Your task to perform on an android device: Show the shopping cart on amazon.com. Image 0: 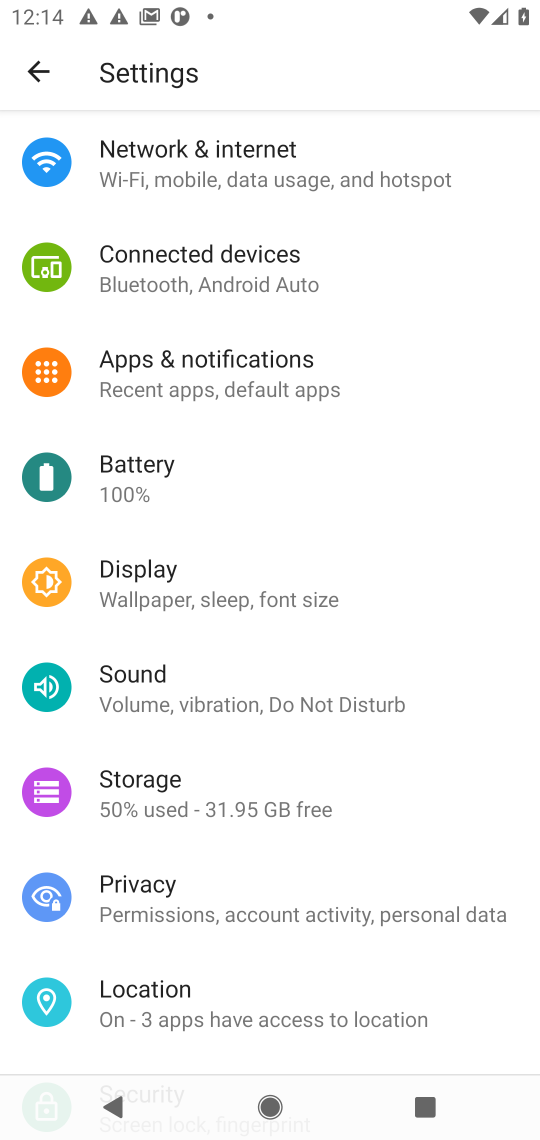
Step 0: press home button
Your task to perform on an android device: Show the shopping cart on amazon.com. Image 1: 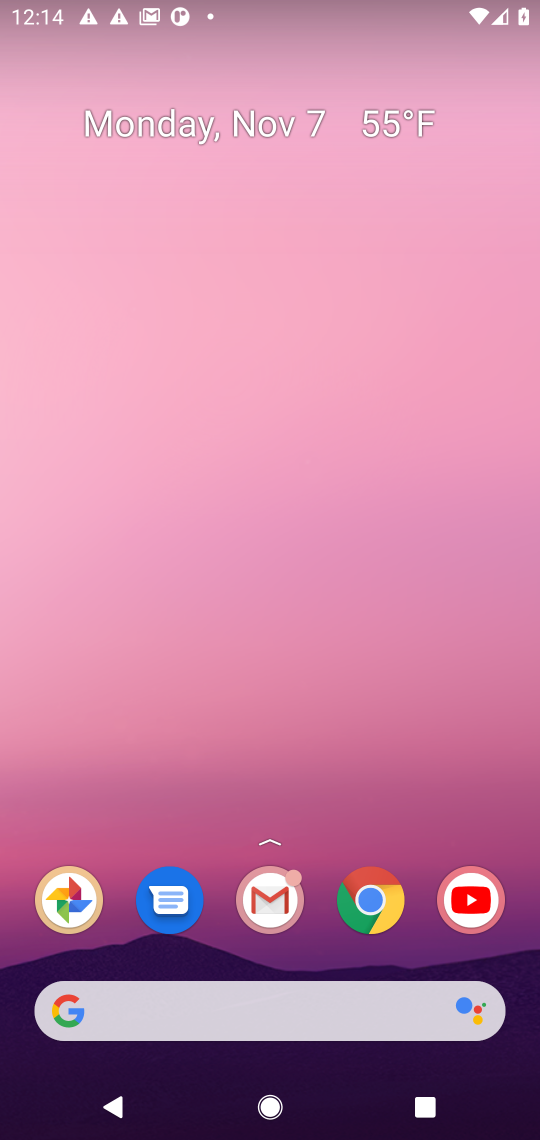
Step 1: click (218, 1016)
Your task to perform on an android device: Show the shopping cart on amazon.com. Image 2: 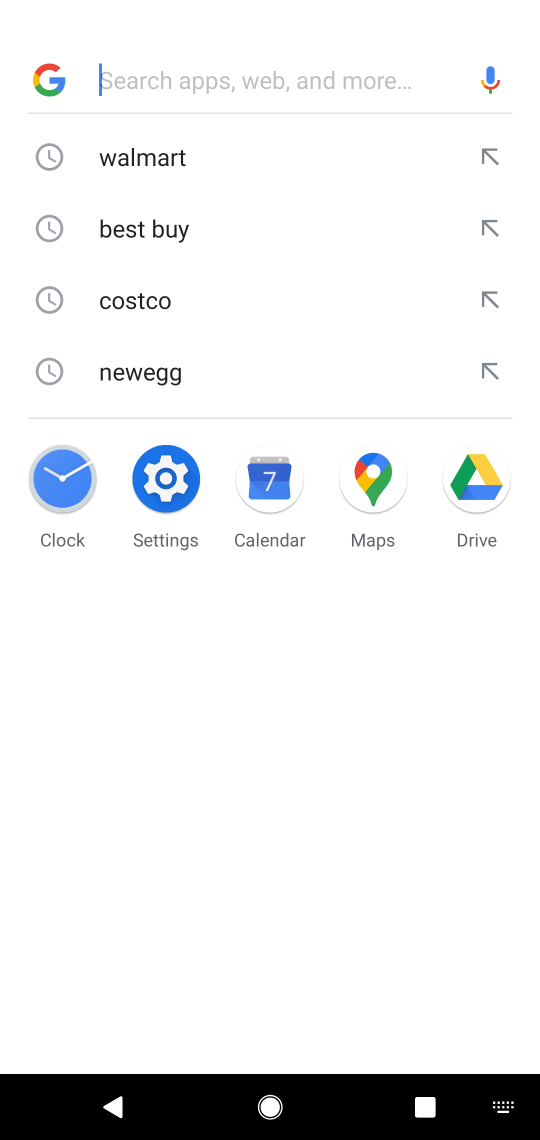
Step 2: type "amazon"
Your task to perform on an android device: Show the shopping cart on amazon.com. Image 3: 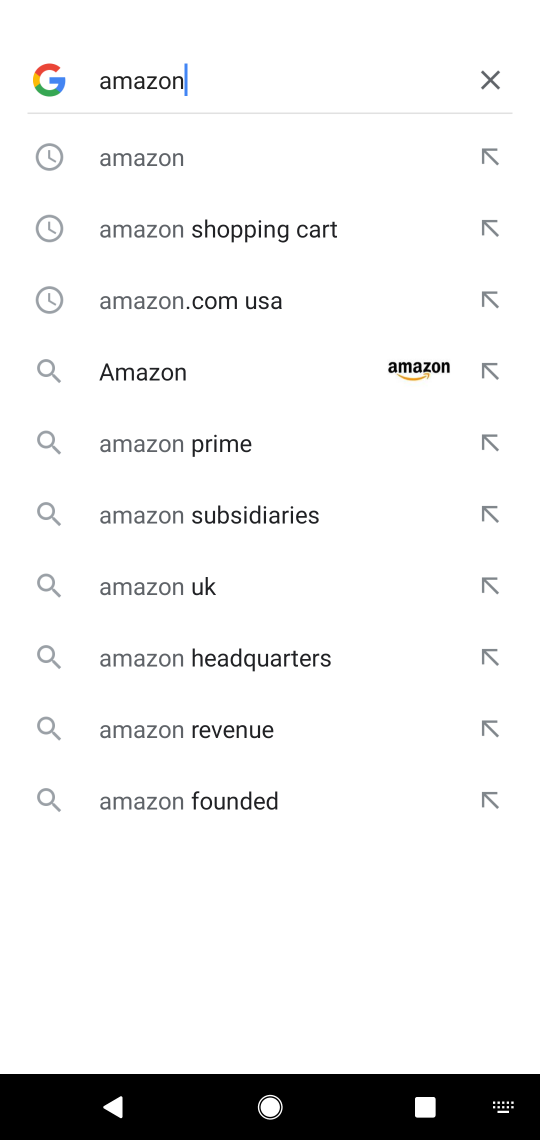
Step 3: click (458, 380)
Your task to perform on an android device: Show the shopping cart on amazon.com. Image 4: 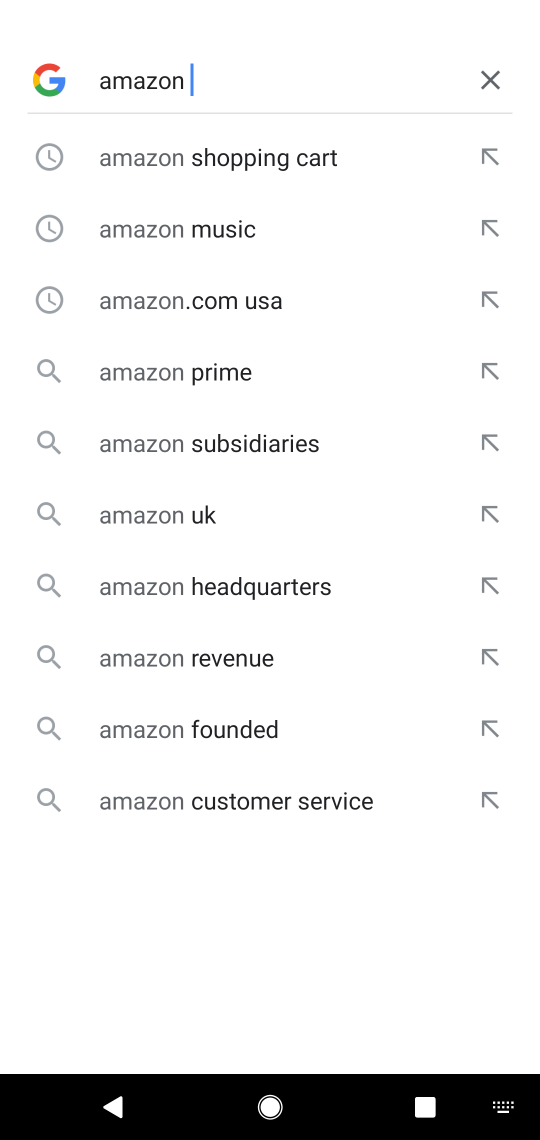
Step 4: click (298, 530)
Your task to perform on an android device: Show the shopping cart on amazon.com. Image 5: 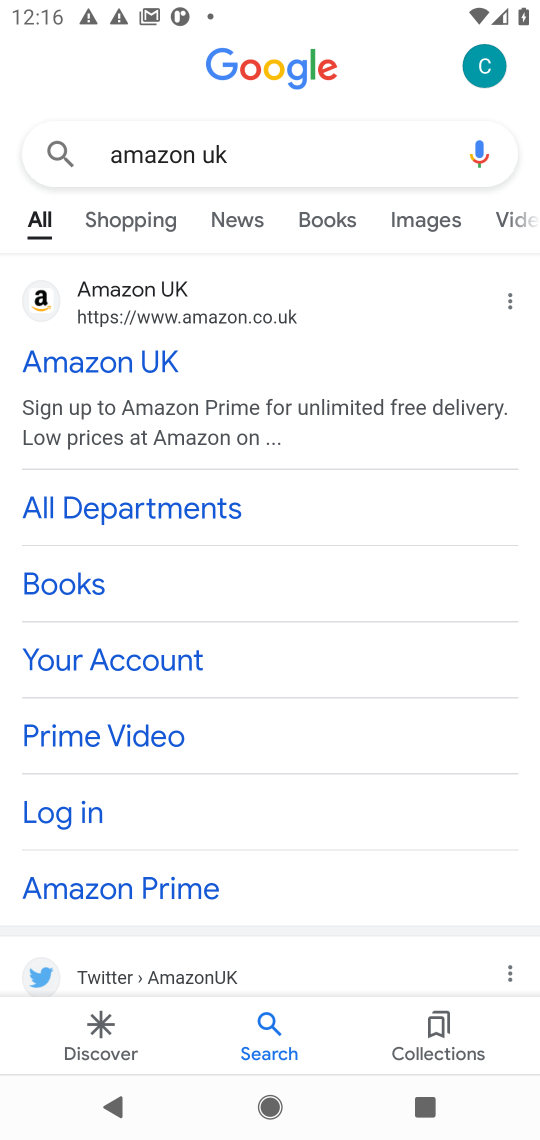
Step 5: click (138, 354)
Your task to perform on an android device: Show the shopping cart on amazon.com. Image 6: 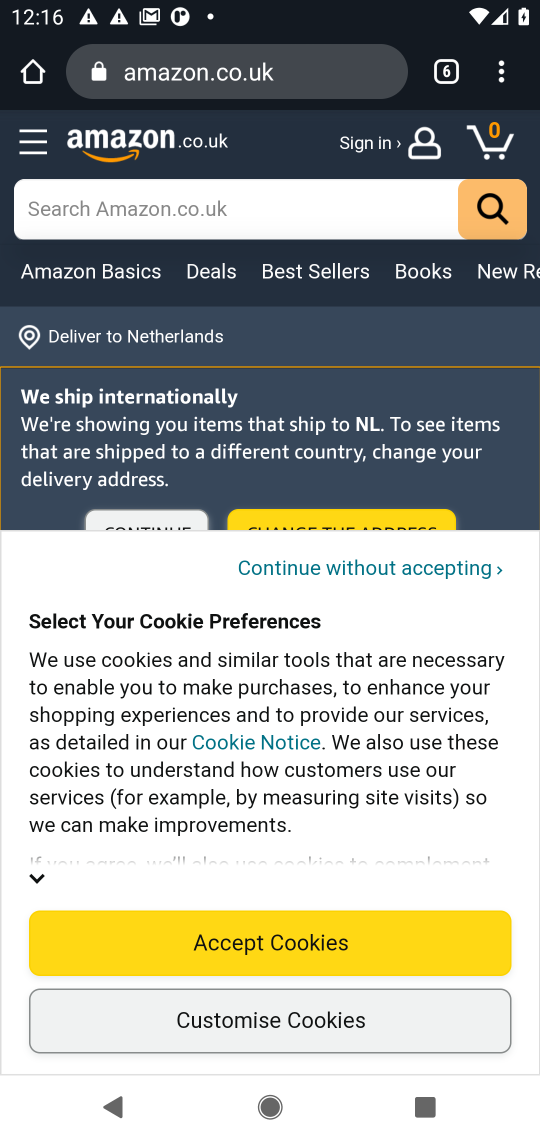
Step 6: task complete